Your task to perform on an android device: see sites visited before in the chrome app Image 0: 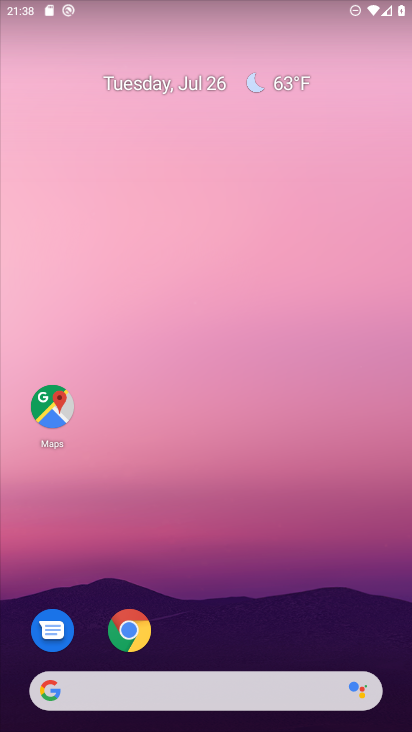
Step 0: click (134, 628)
Your task to perform on an android device: see sites visited before in the chrome app Image 1: 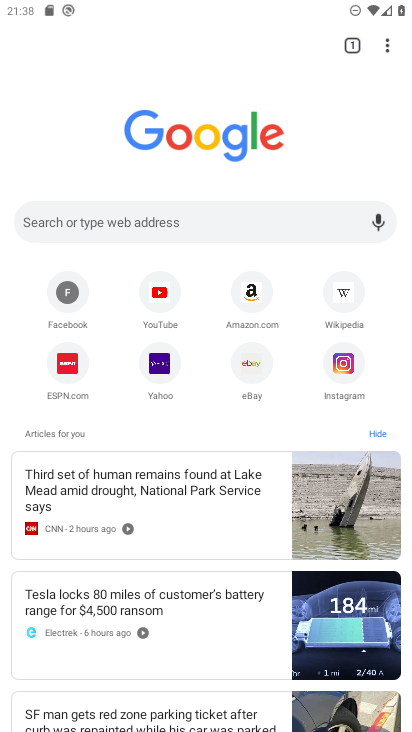
Step 1: click (380, 30)
Your task to perform on an android device: see sites visited before in the chrome app Image 2: 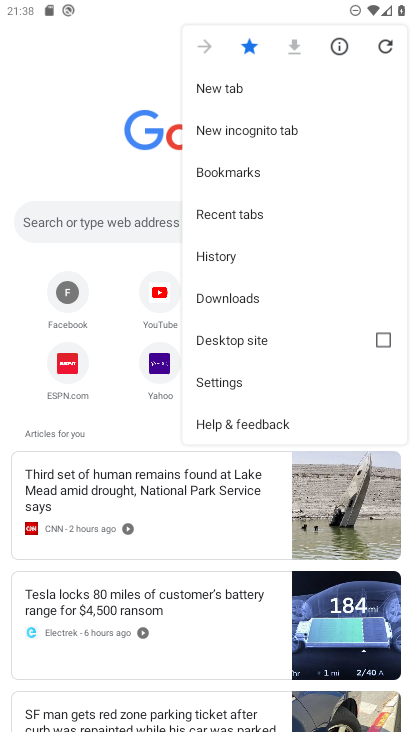
Step 2: click (242, 266)
Your task to perform on an android device: see sites visited before in the chrome app Image 3: 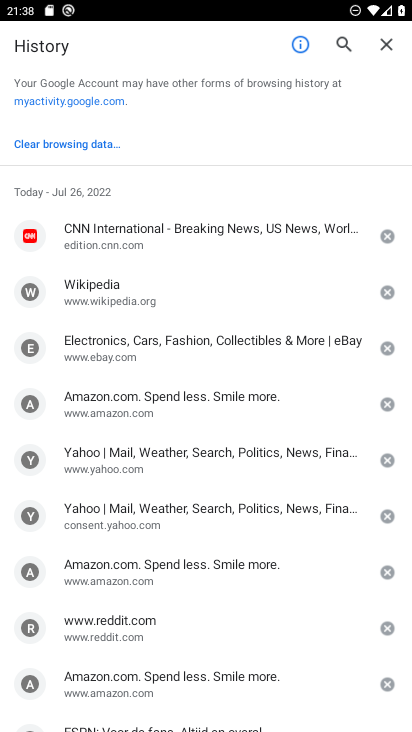
Step 3: task complete